Your task to perform on an android device: create a new album in the google photos Image 0: 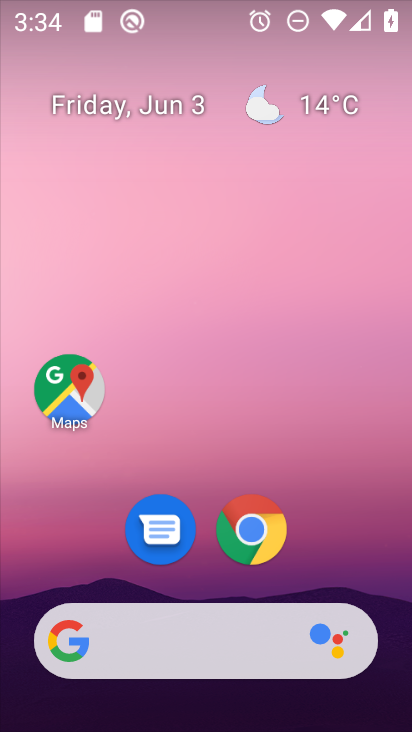
Step 0: drag from (370, 585) to (336, 186)
Your task to perform on an android device: create a new album in the google photos Image 1: 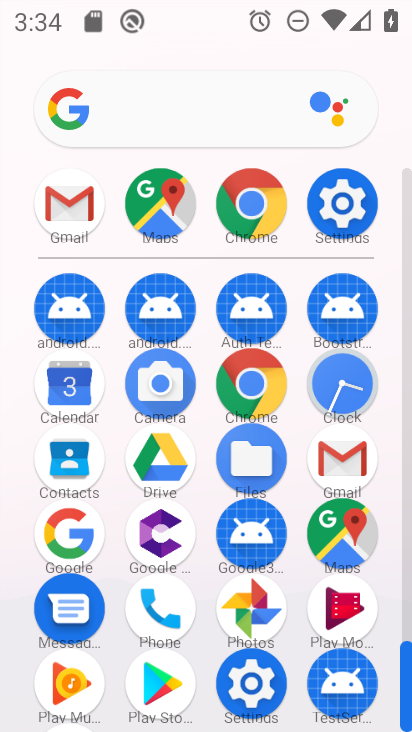
Step 1: click (274, 618)
Your task to perform on an android device: create a new album in the google photos Image 2: 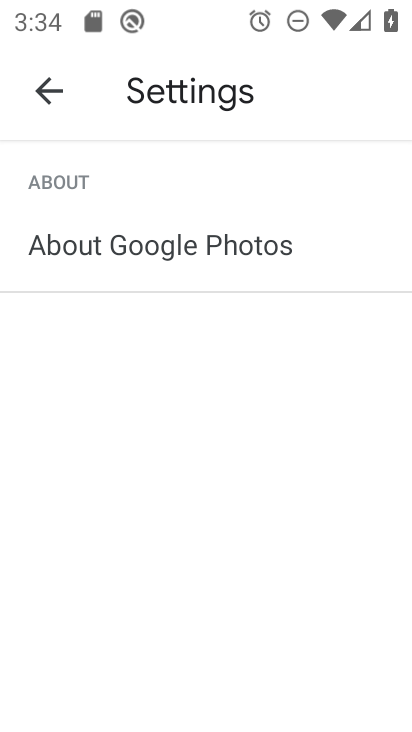
Step 2: press back button
Your task to perform on an android device: create a new album in the google photos Image 3: 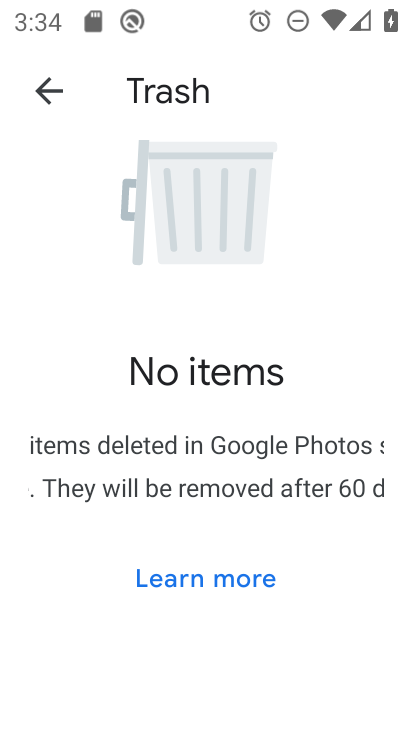
Step 3: press back button
Your task to perform on an android device: create a new album in the google photos Image 4: 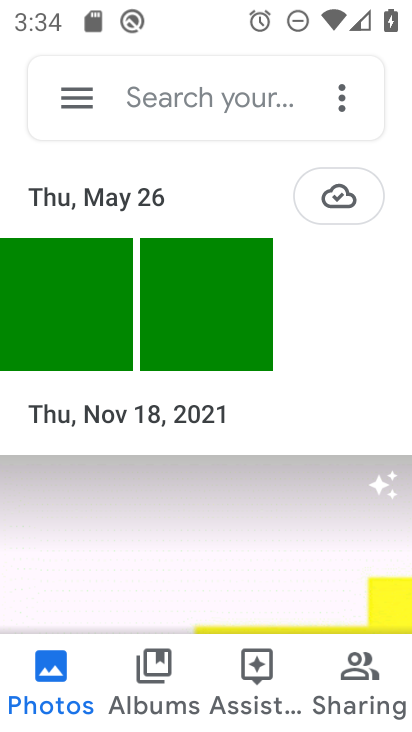
Step 4: click (342, 107)
Your task to perform on an android device: create a new album in the google photos Image 5: 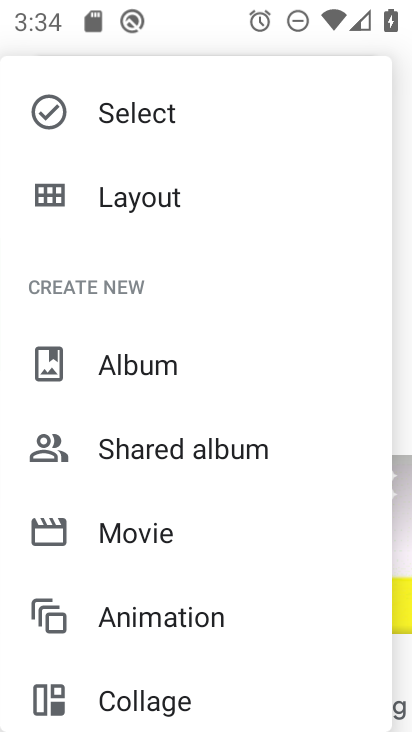
Step 5: click (211, 370)
Your task to perform on an android device: create a new album in the google photos Image 6: 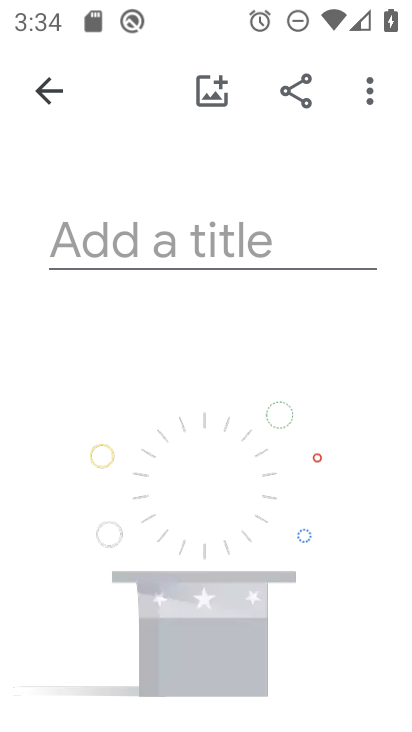
Step 6: click (271, 261)
Your task to perform on an android device: create a new album in the google photos Image 7: 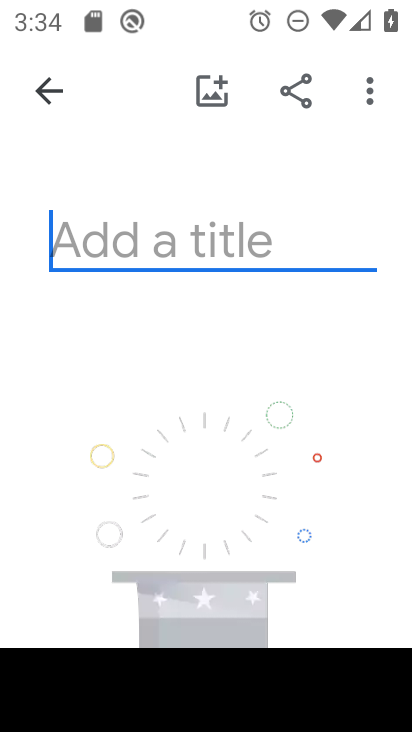
Step 7: type "sala sa "
Your task to perform on an android device: create a new album in the google photos Image 8: 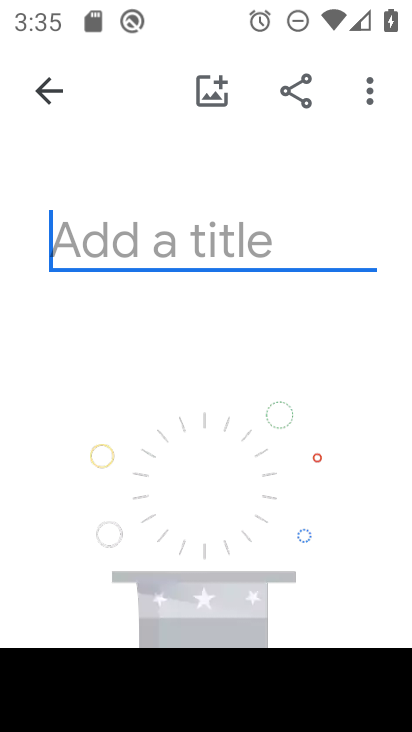
Step 8: drag from (300, 297) to (299, 227)
Your task to perform on an android device: create a new album in the google photos Image 9: 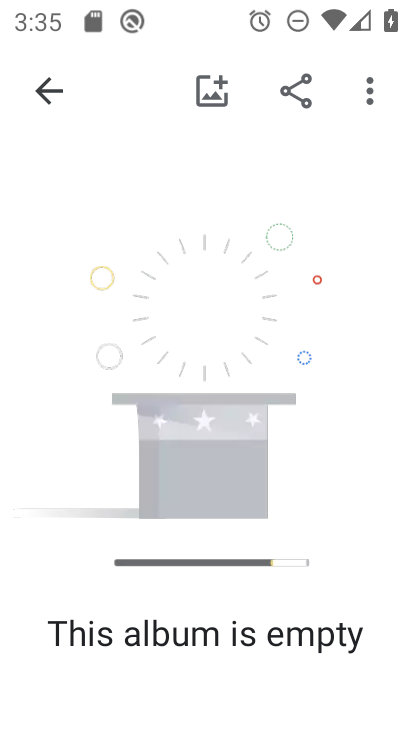
Step 9: click (221, 277)
Your task to perform on an android device: create a new album in the google photos Image 10: 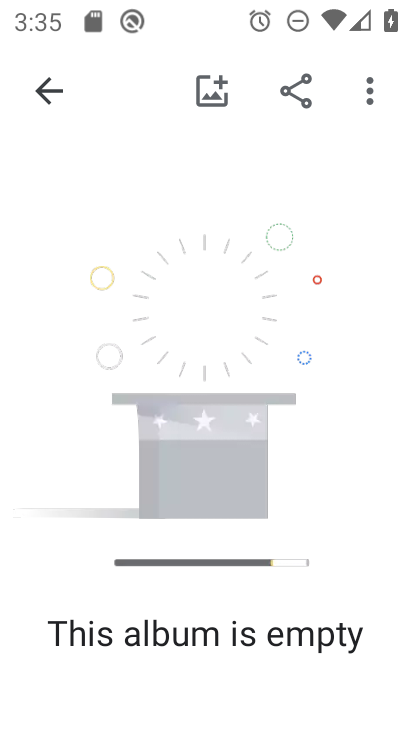
Step 10: drag from (230, 266) to (243, 608)
Your task to perform on an android device: create a new album in the google photos Image 11: 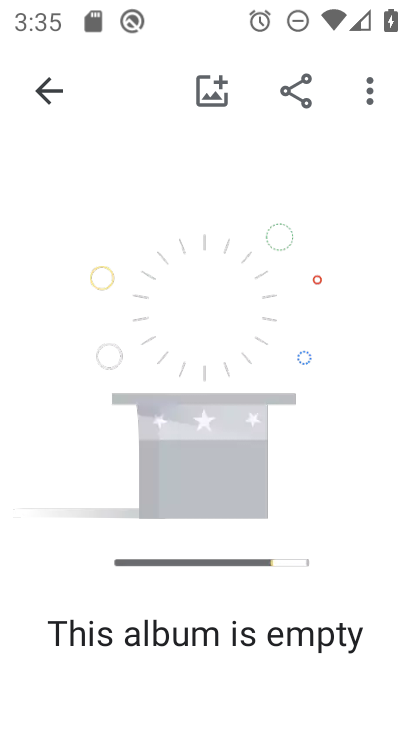
Step 11: drag from (248, 599) to (264, 295)
Your task to perform on an android device: create a new album in the google photos Image 12: 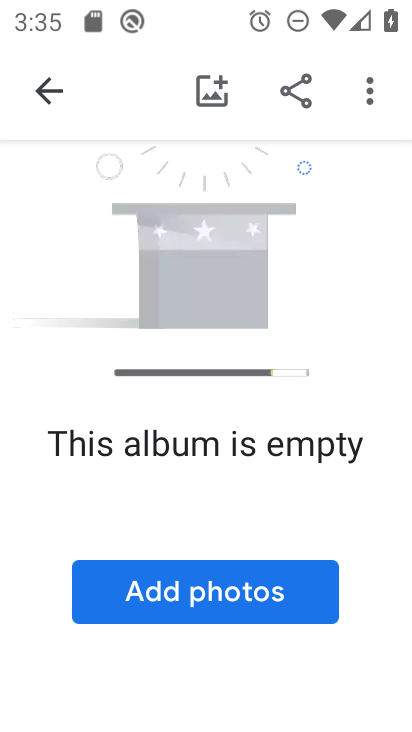
Step 12: click (248, 588)
Your task to perform on an android device: create a new album in the google photos Image 13: 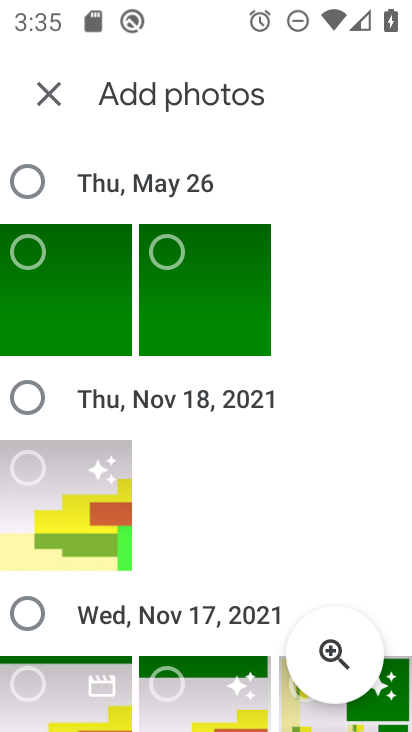
Step 13: click (193, 277)
Your task to perform on an android device: create a new album in the google photos Image 14: 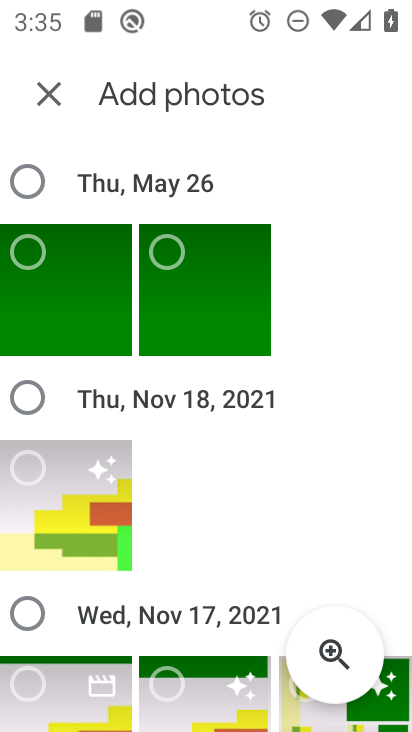
Step 14: click (78, 274)
Your task to perform on an android device: create a new album in the google photos Image 15: 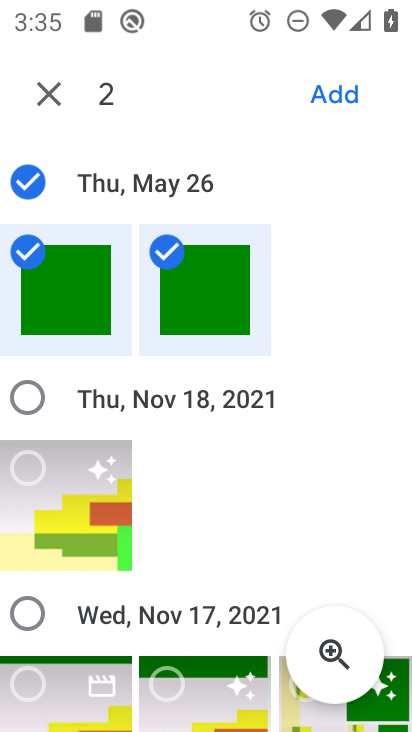
Step 15: click (364, 85)
Your task to perform on an android device: create a new album in the google photos Image 16: 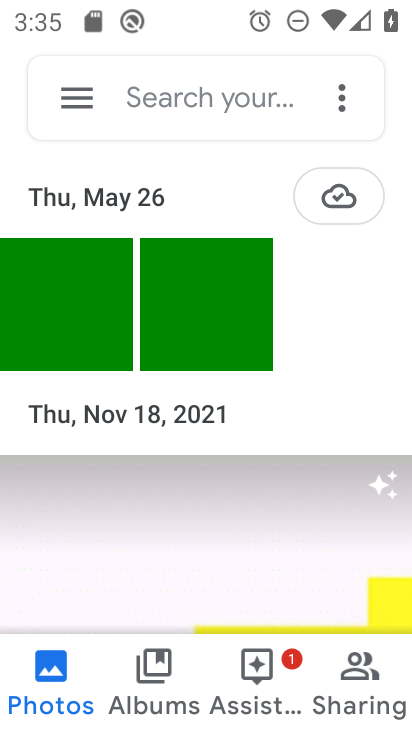
Step 16: task complete